Your task to perform on an android device: add a label to a message in the gmail app Image 0: 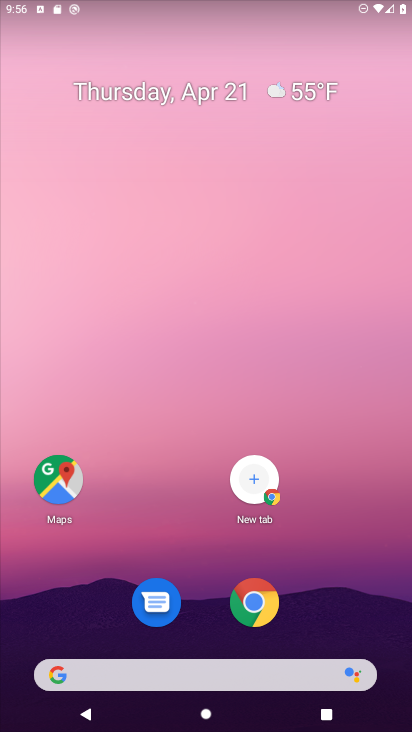
Step 0: drag from (194, 627) to (192, 173)
Your task to perform on an android device: add a label to a message in the gmail app Image 1: 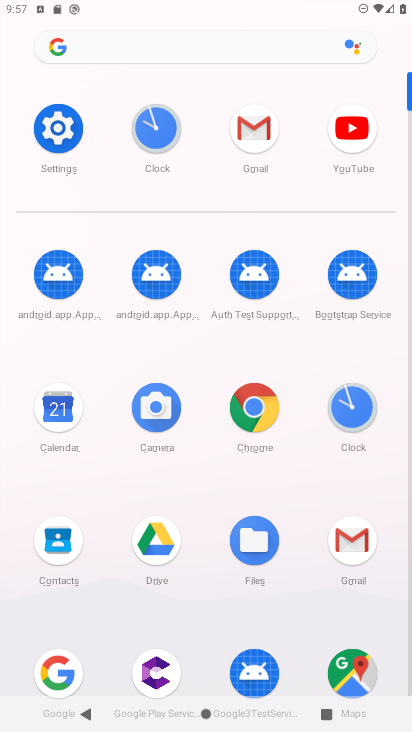
Step 1: click (347, 544)
Your task to perform on an android device: add a label to a message in the gmail app Image 2: 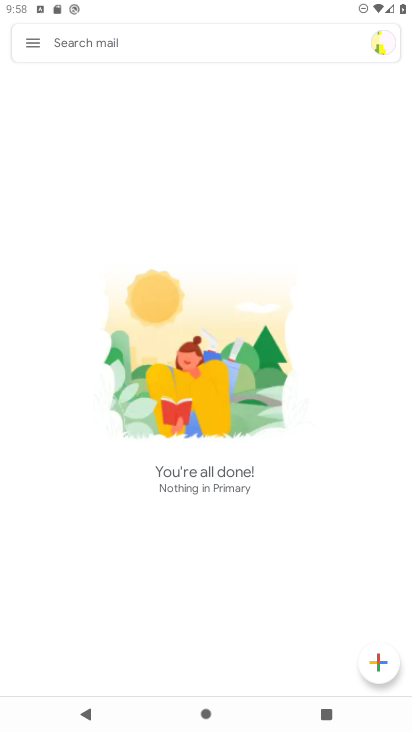
Step 2: task complete